Your task to perform on an android device: check google app version Image 0: 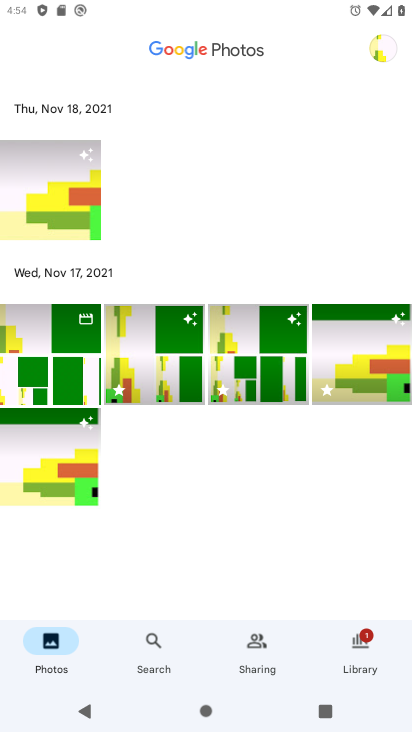
Step 0: press home button
Your task to perform on an android device: check google app version Image 1: 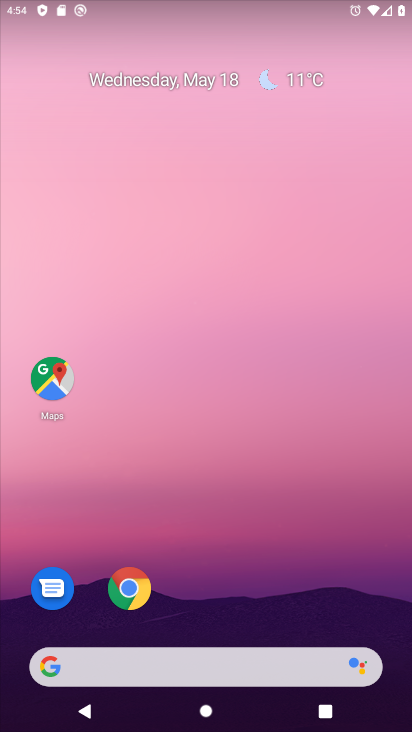
Step 1: drag from (275, 620) to (282, 159)
Your task to perform on an android device: check google app version Image 2: 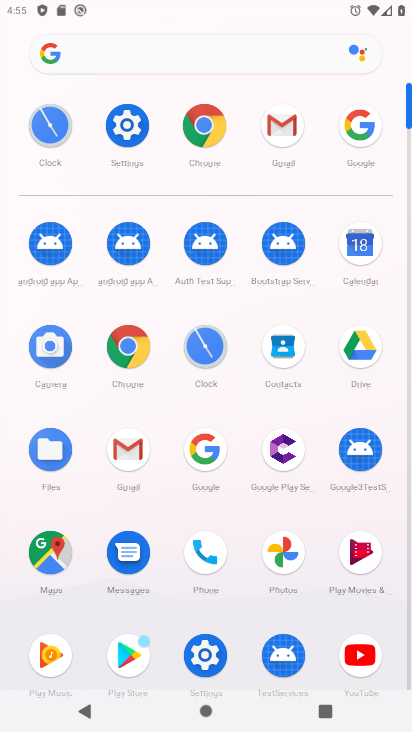
Step 2: click (202, 445)
Your task to perform on an android device: check google app version Image 3: 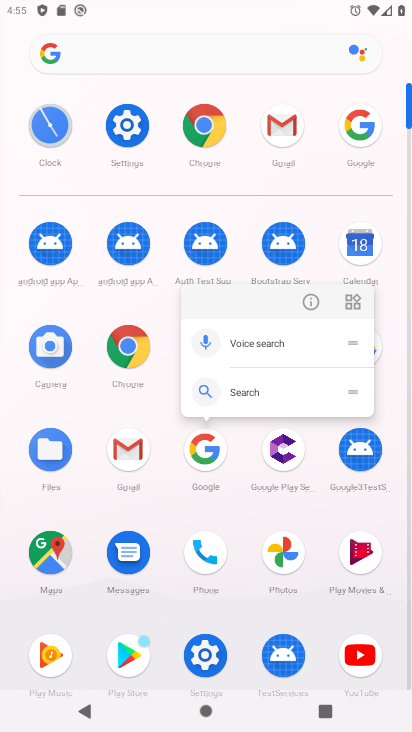
Step 3: click (310, 302)
Your task to perform on an android device: check google app version Image 4: 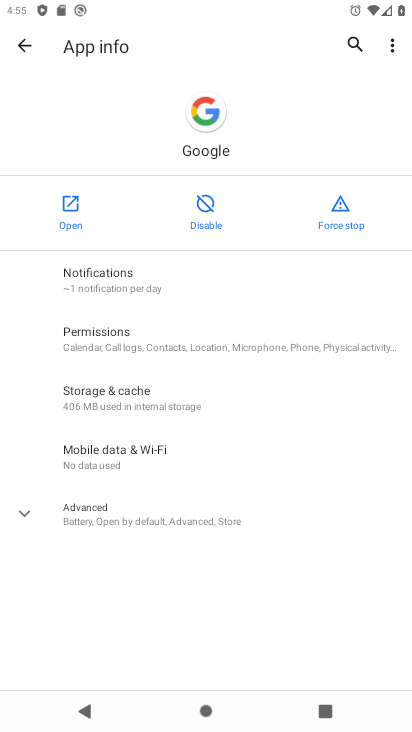
Step 4: click (113, 519)
Your task to perform on an android device: check google app version Image 5: 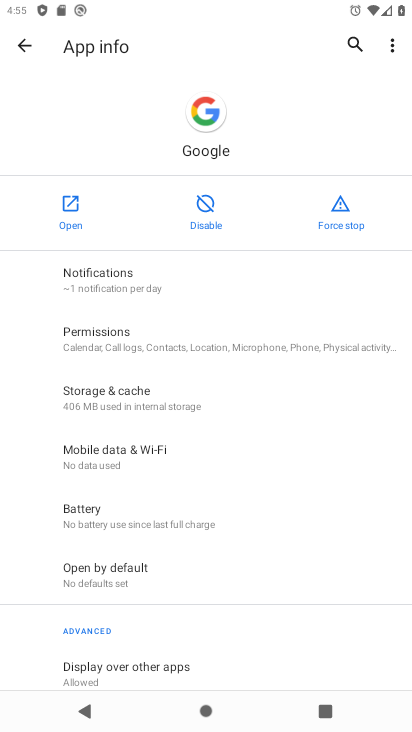
Step 5: task complete